Your task to perform on an android device: Search for seafood restaurants on Google Maps Image 0: 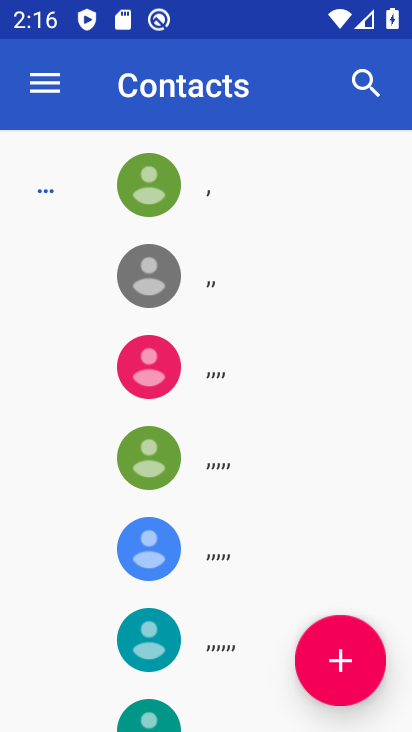
Step 0: press home button
Your task to perform on an android device: Search for seafood restaurants on Google Maps Image 1: 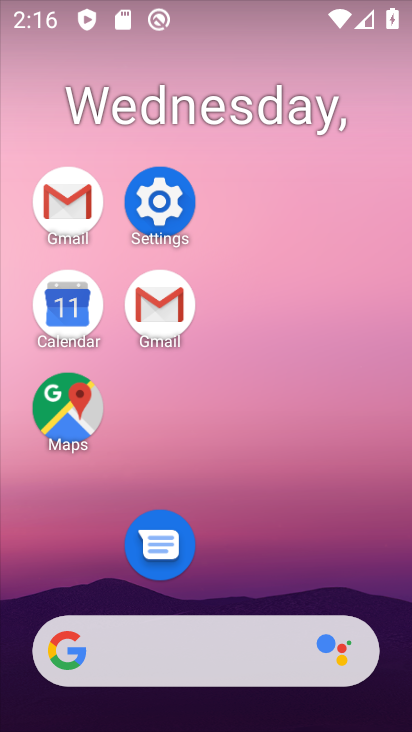
Step 1: click (61, 410)
Your task to perform on an android device: Search for seafood restaurants on Google Maps Image 2: 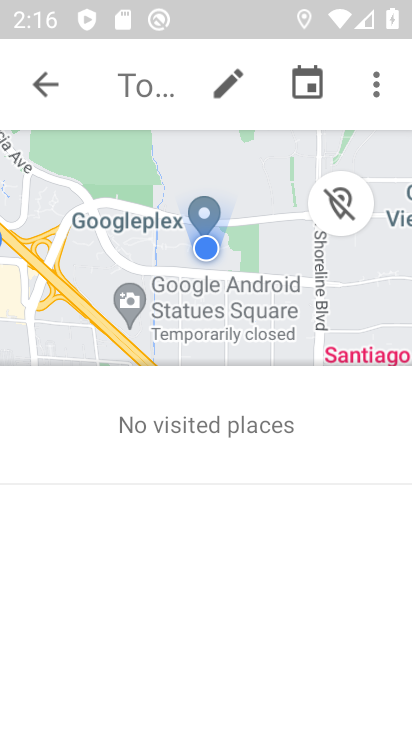
Step 2: click (148, 89)
Your task to perform on an android device: Search for seafood restaurants on Google Maps Image 3: 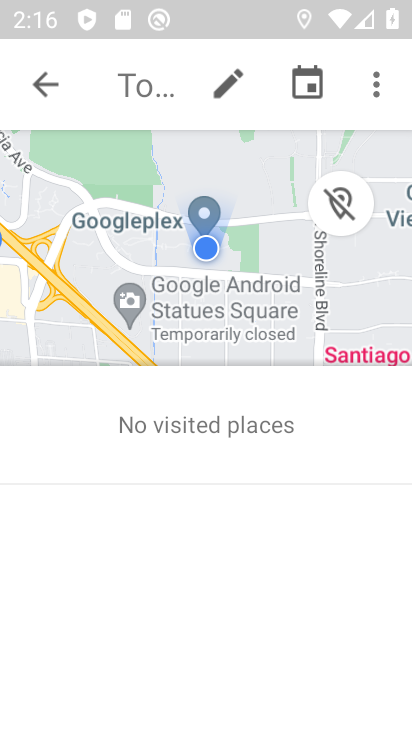
Step 3: click (45, 82)
Your task to perform on an android device: Search for seafood restaurants on Google Maps Image 4: 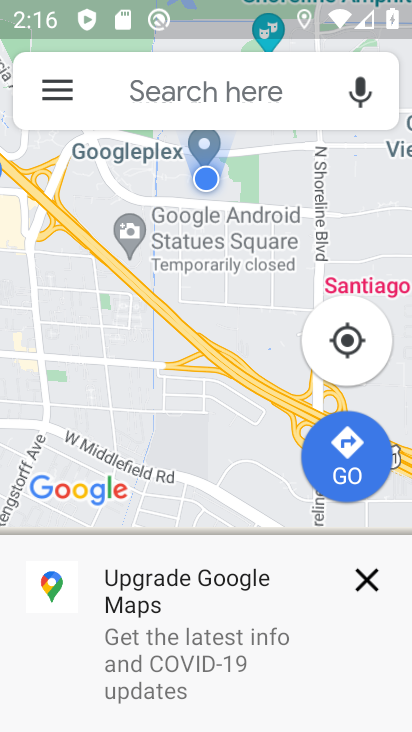
Step 4: click (292, 93)
Your task to perform on an android device: Search for seafood restaurants on Google Maps Image 5: 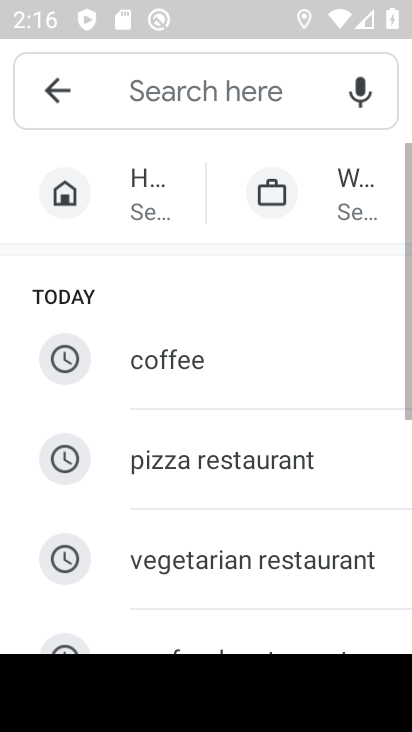
Step 5: drag from (209, 539) to (219, 201)
Your task to perform on an android device: Search for seafood restaurants on Google Maps Image 6: 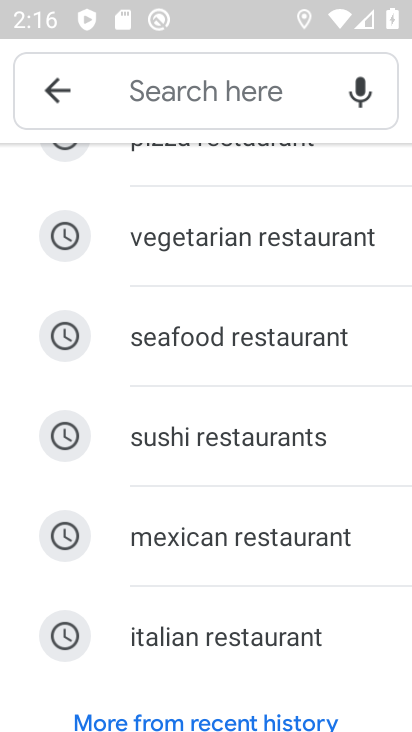
Step 6: click (282, 325)
Your task to perform on an android device: Search for seafood restaurants on Google Maps Image 7: 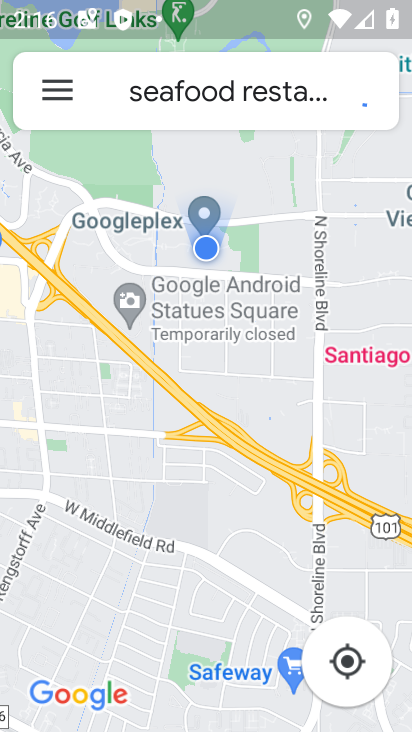
Step 7: task complete